Your task to perform on an android device: Open Google Chrome Image 0: 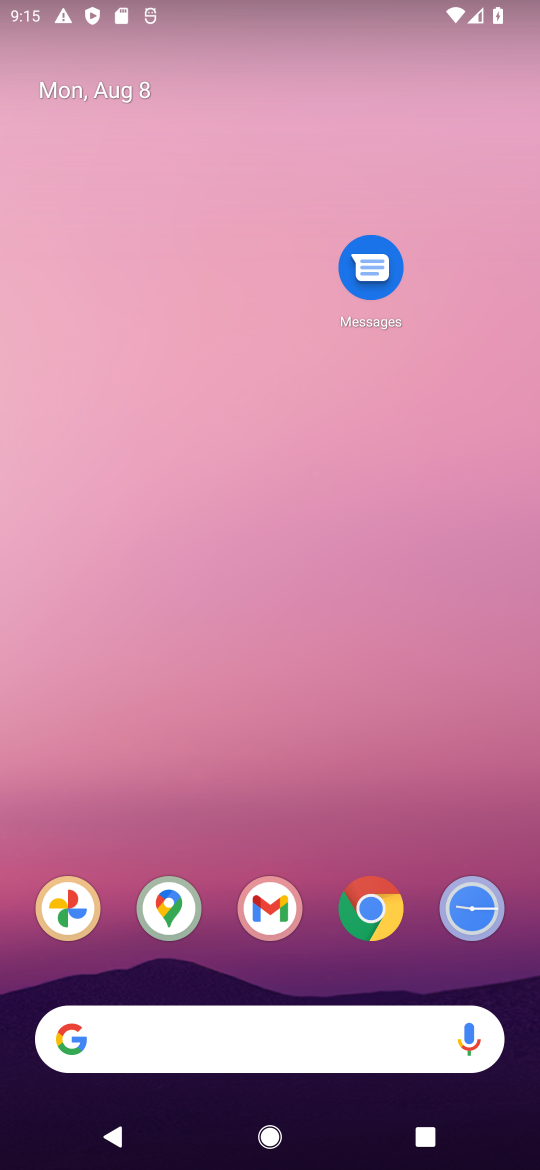
Step 0: click (390, 928)
Your task to perform on an android device: Open Google Chrome Image 1: 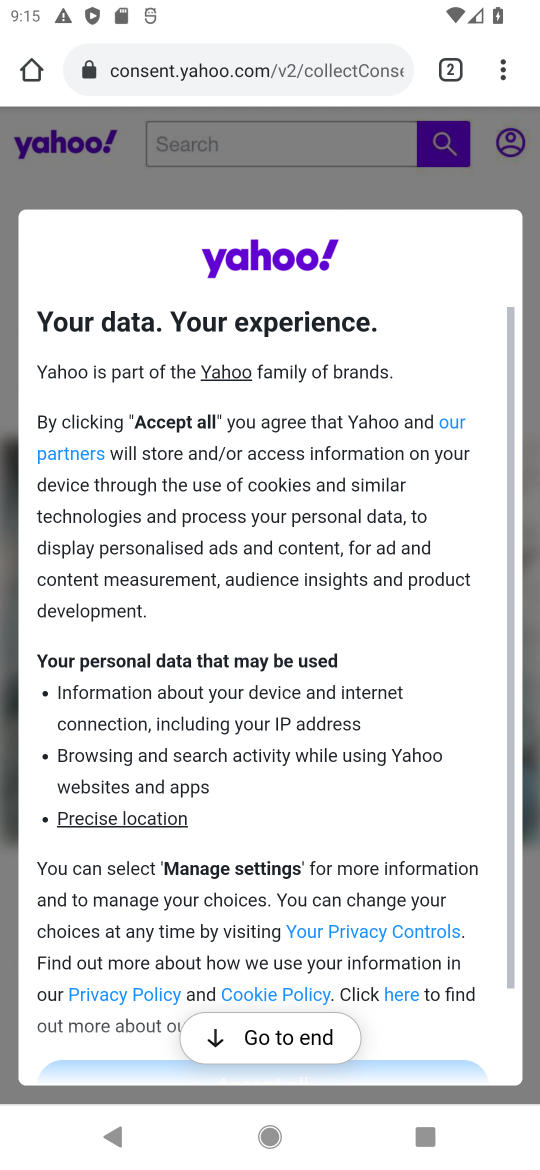
Step 1: task complete